Your task to perform on an android device: Open Reddit.com Image 0: 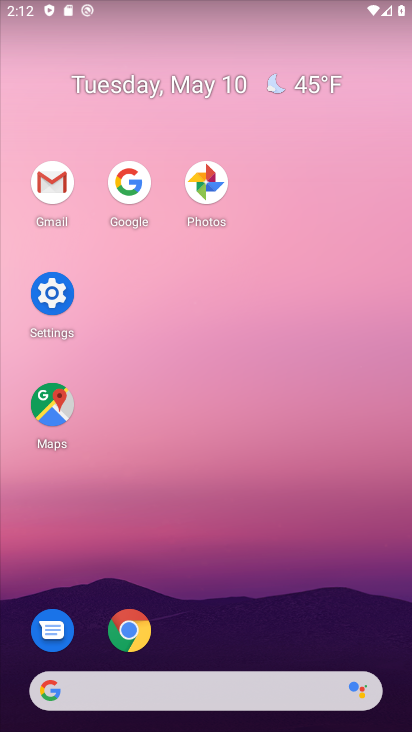
Step 0: click (125, 631)
Your task to perform on an android device: Open Reddit.com Image 1: 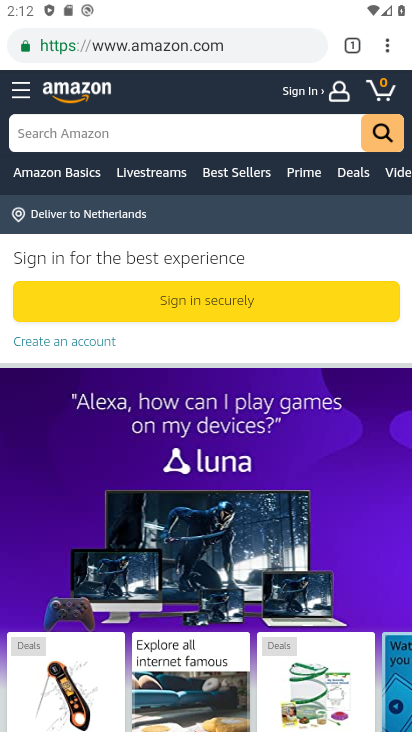
Step 1: click (355, 52)
Your task to perform on an android device: Open Reddit.com Image 2: 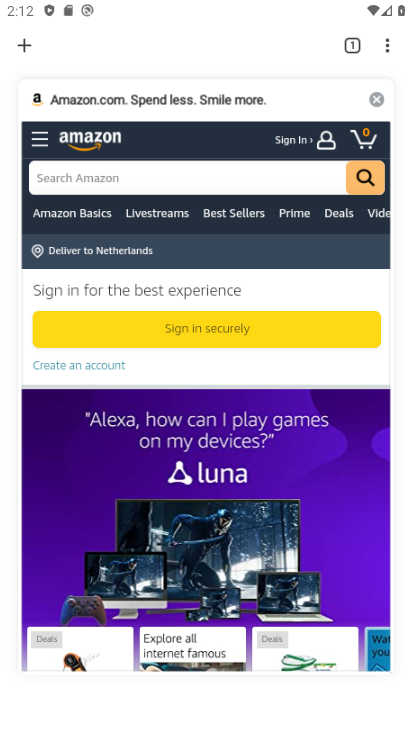
Step 2: click (34, 47)
Your task to perform on an android device: Open Reddit.com Image 3: 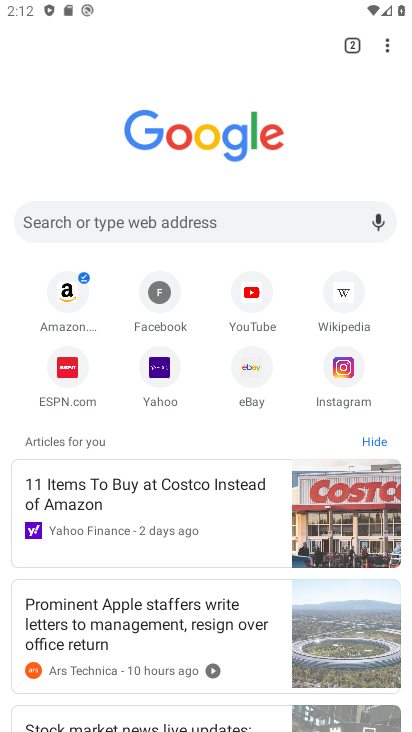
Step 3: click (185, 217)
Your task to perform on an android device: Open Reddit.com Image 4: 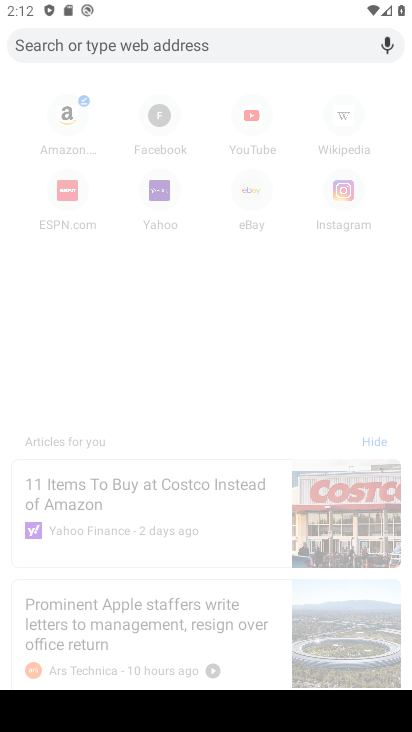
Step 4: type "reddit"
Your task to perform on an android device: Open Reddit.com Image 5: 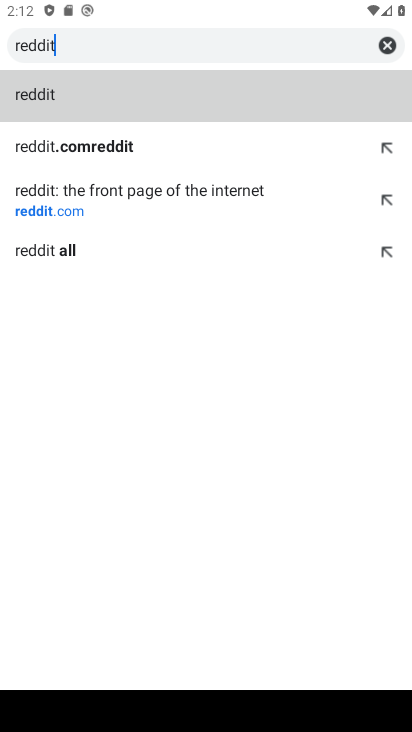
Step 5: click (71, 210)
Your task to perform on an android device: Open Reddit.com Image 6: 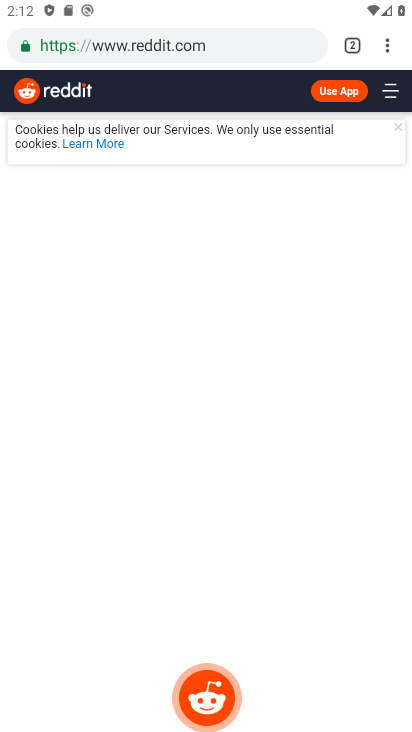
Step 6: task complete